Your task to perform on an android device: turn off picture-in-picture Image 0: 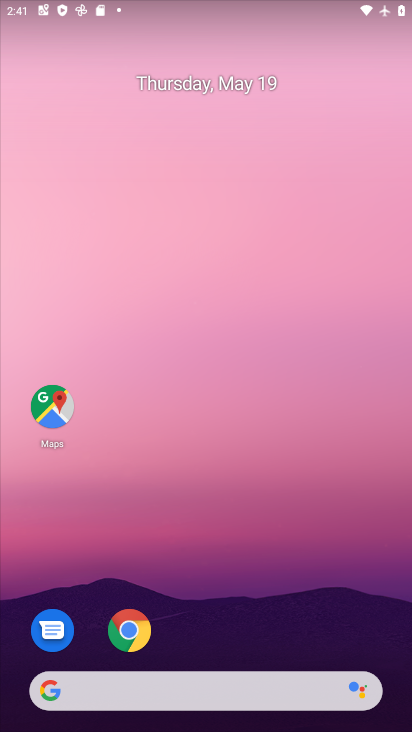
Step 0: drag from (390, 632) to (332, 86)
Your task to perform on an android device: turn off picture-in-picture Image 1: 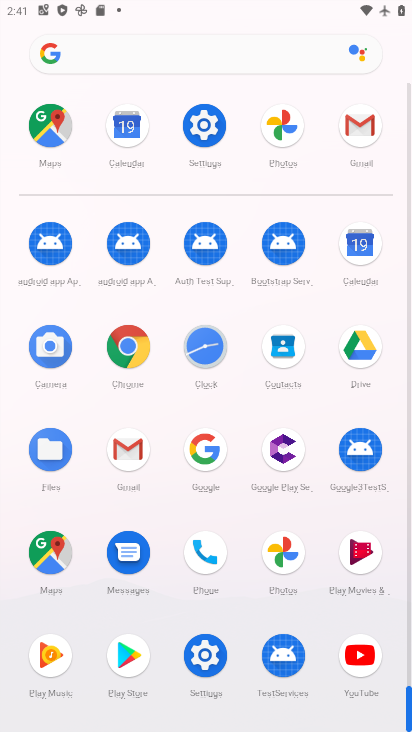
Step 1: click (205, 654)
Your task to perform on an android device: turn off picture-in-picture Image 2: 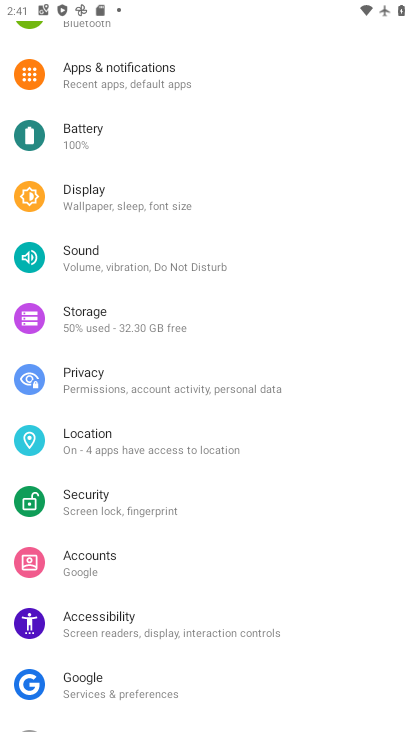
Step 2: click (143, 66)
Your task to perform on an android device: turn off picture-in-picture Image 3: 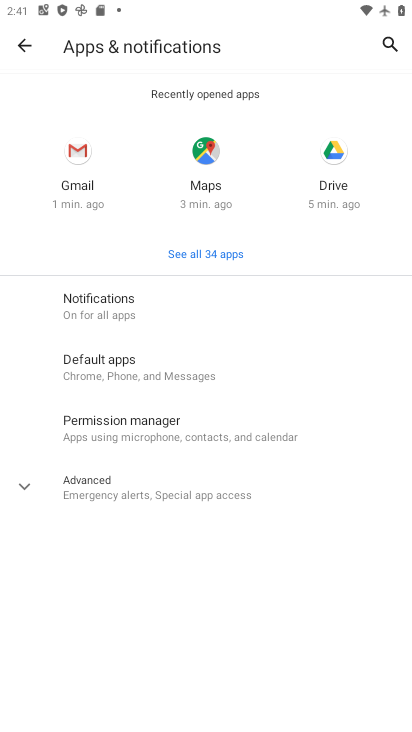
Step 3: click (19, 485)
Your task to perform on an android device: turn off picture-in-picture Image 4: 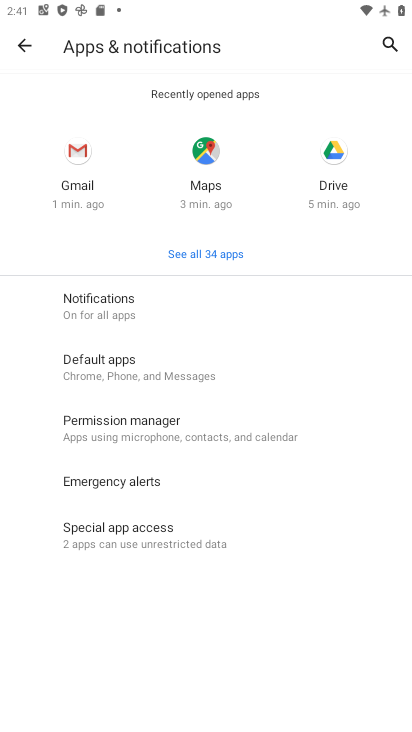
Step 4: click (126, 530)
Your task to perform on an android device: turn off picture-in-picture Image 5: 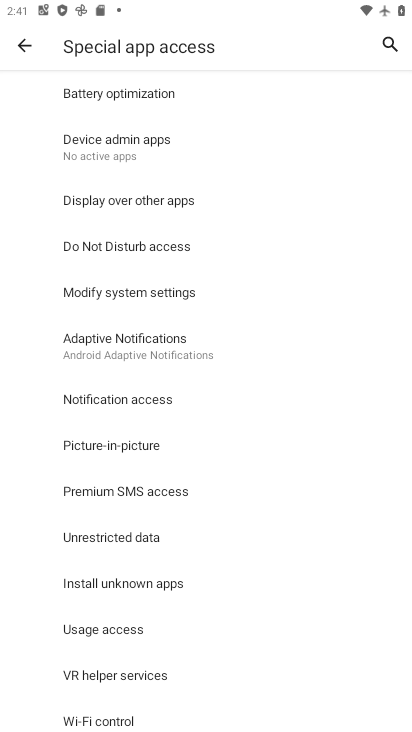
Step 5: click (100, 450)
Your task to perform on an android device: turn off picture-in-picture Image 6: 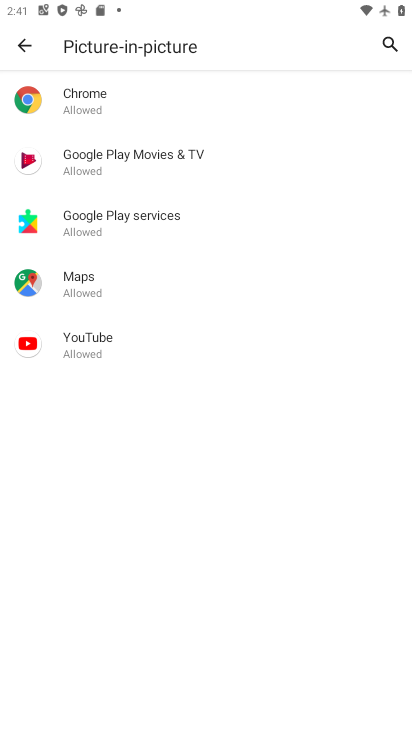
Step 6: click (91, 347)
Your task to perform on an android device: turn off picture-in-picture Image 7: 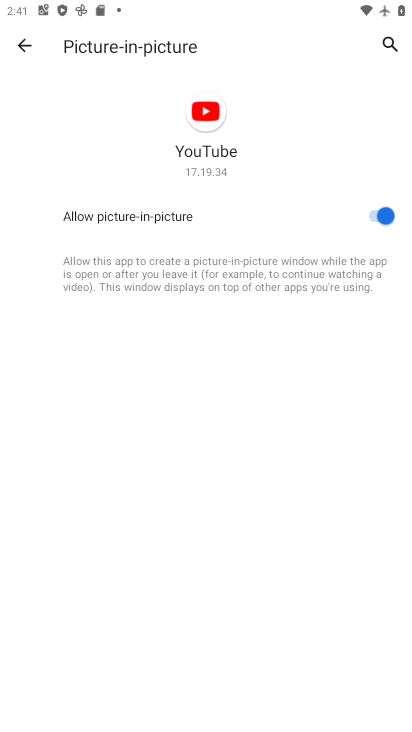
Step 7: click (370, 214)
Your task to perform on an android device: turn off picture-in-picture Image 8: 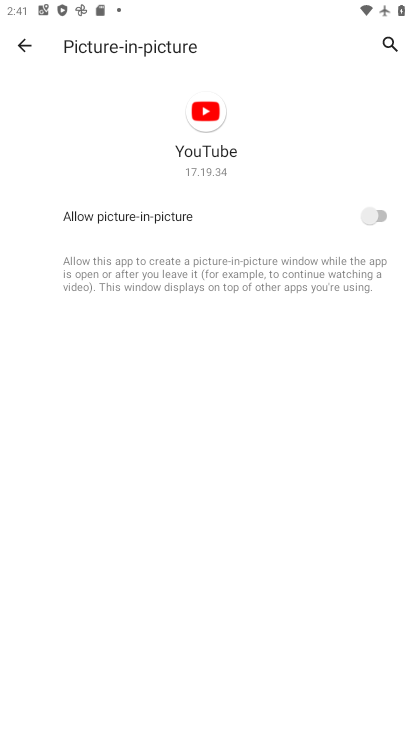
Step 8: task complete